Your task to perform on an android device: delete the emails in spam in the gmail app Image 0: 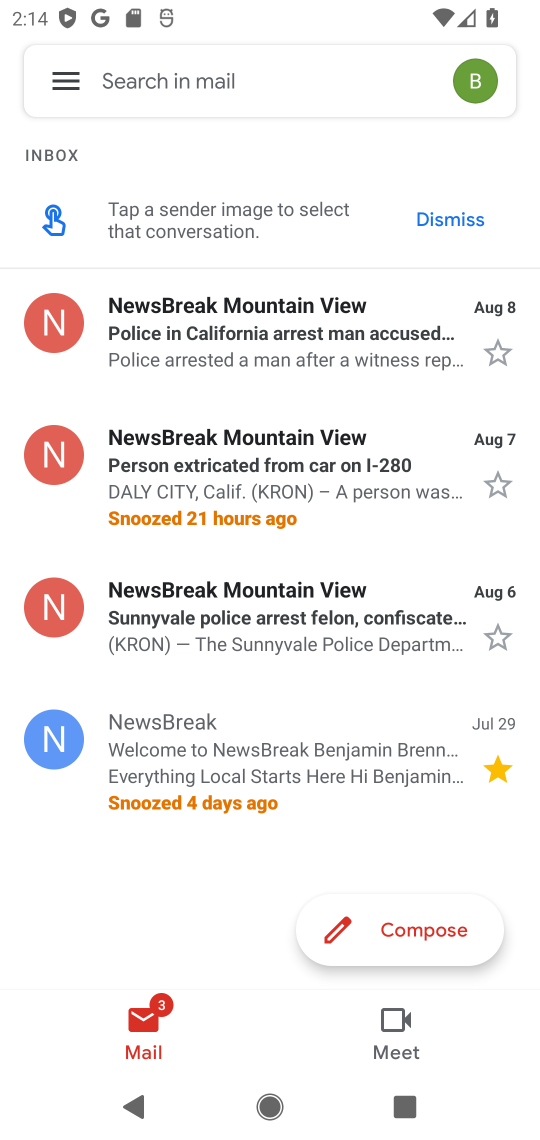
Step 0: click (63, 77)
Your task to perform on an android device: delete the emails in spam in the gmail app Image 1: 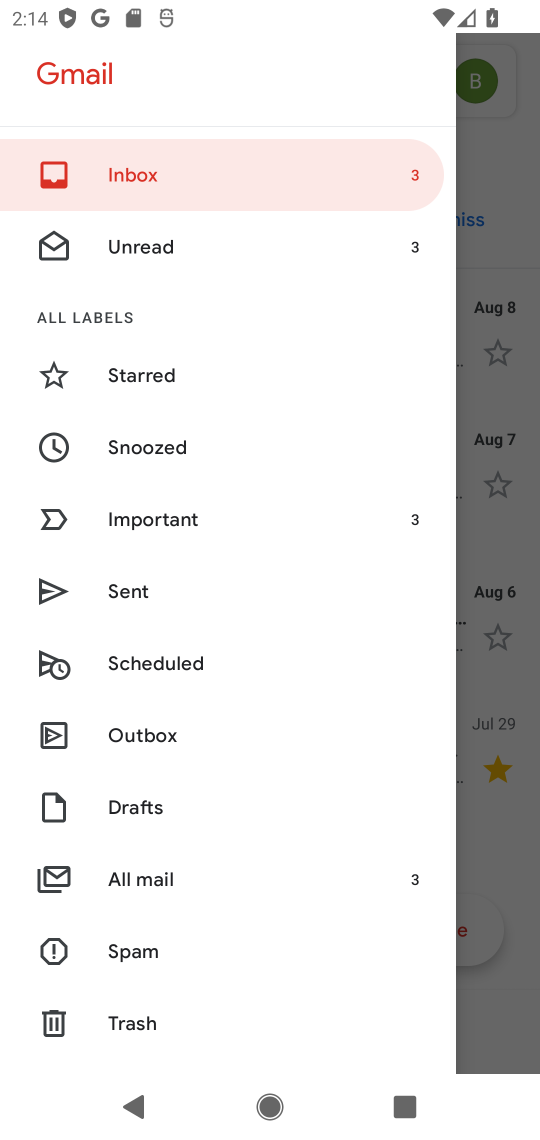
Step 1: click (143, 944)
Your task to perform on an android device: delete the emails in spam in the gmail app Image 2: 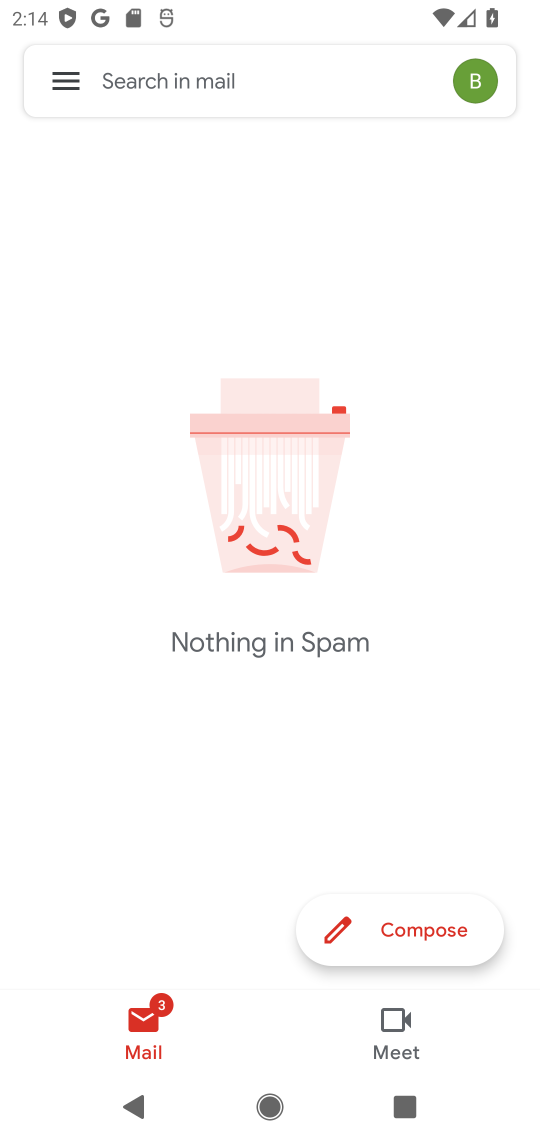
Step 2: task complete